Your task to perform on an android device: toggle airplane mode Image 0: 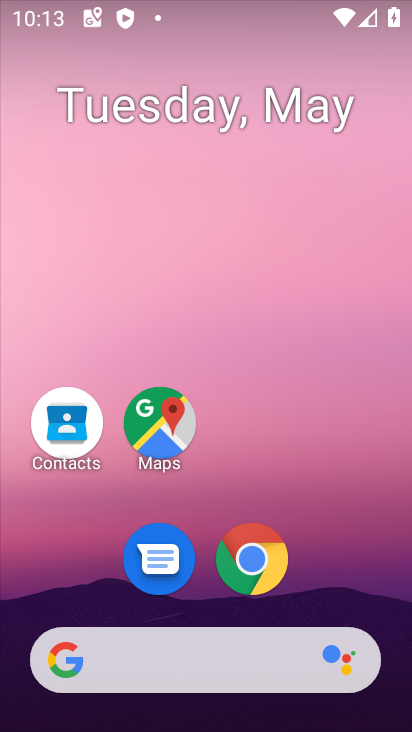
Step 0: drag from (363, 570) to (338, 206)
Your task to perform on an android device: toggle airplane mode Image 1: 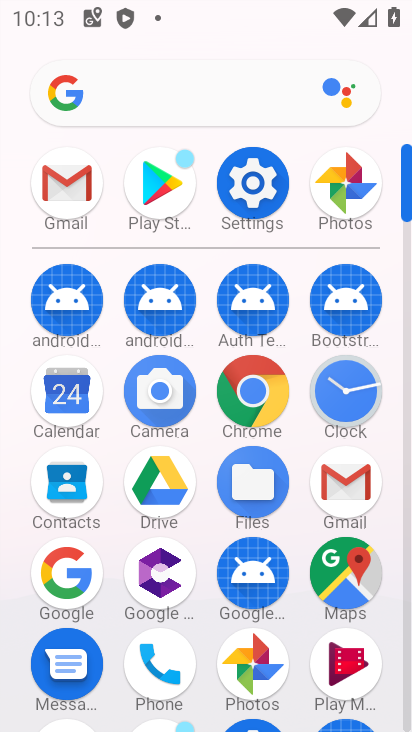
Step 1: click (277, 192)
Your task to perform on an android device: toggle airplane mode Image 2: 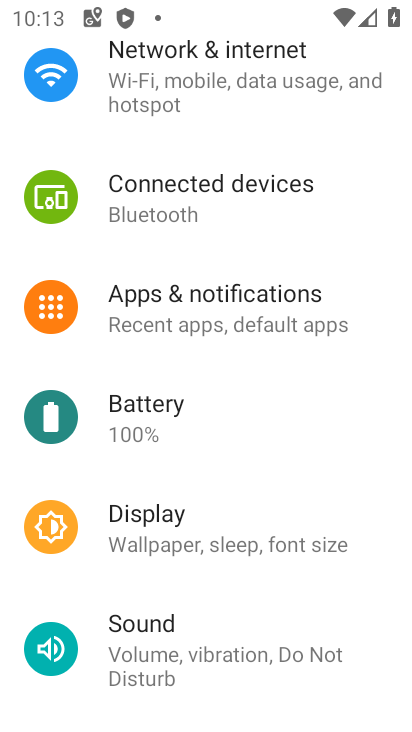
Step 2: drag from (273, 230) to (329, 381)
Your task to perform on an android device: toggle airplane mode Image 3: 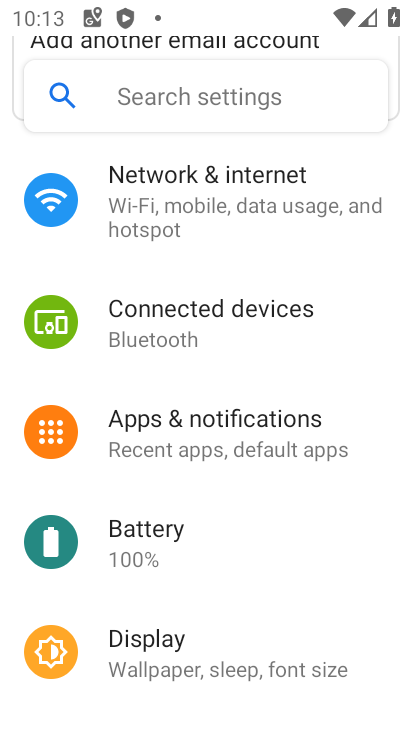
Step 3: click (232, 202)
Your task to perform on an android device: toggle airplane mode Image 4: 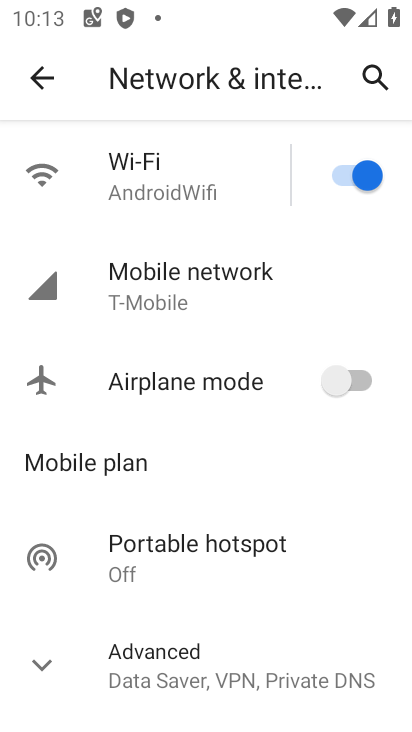
Step 4: click (337, 376)
Your task to perform on an android device: toggle airplane mode Image 5: 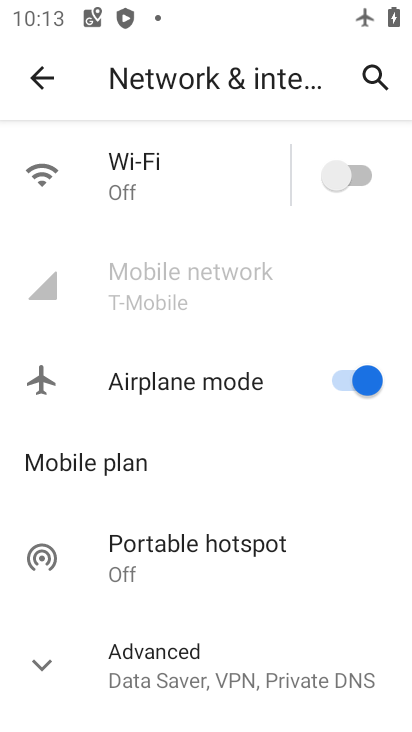
Step 5: task complete